Your task to perform on an android device: How much does a 2 bedroom apartment rent for in Chicago? Image 0: 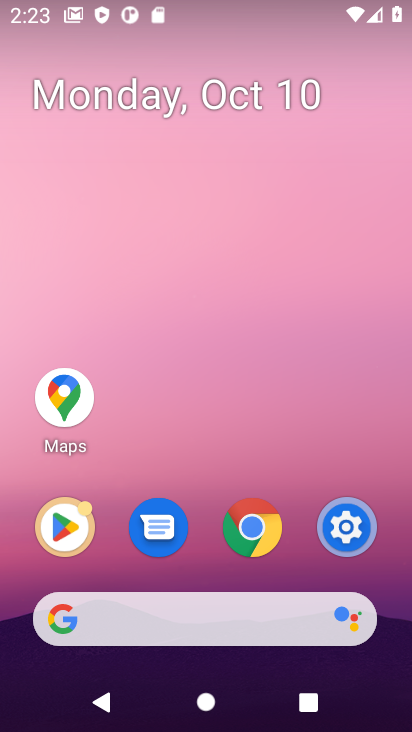
Step 0: press home button
Your task to perform on an android device: How much does a 2 bedroom apartment rent for in Chicago? Image 1: 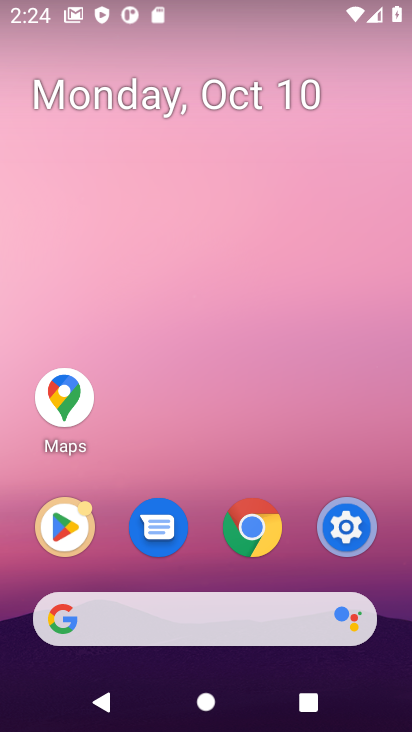
Step 1: press home button
Your task to perform on an android device: How much does a 2 bedroom apartment rent for in Chicago? Image 2: 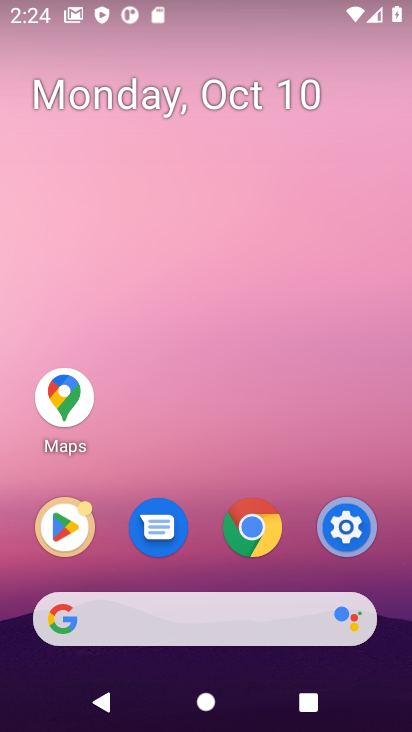
Step 2: click (250, 621)
Your task to perform on an android device: How much does a 2 bedroom apartment rent for in Chicago? Image 3: 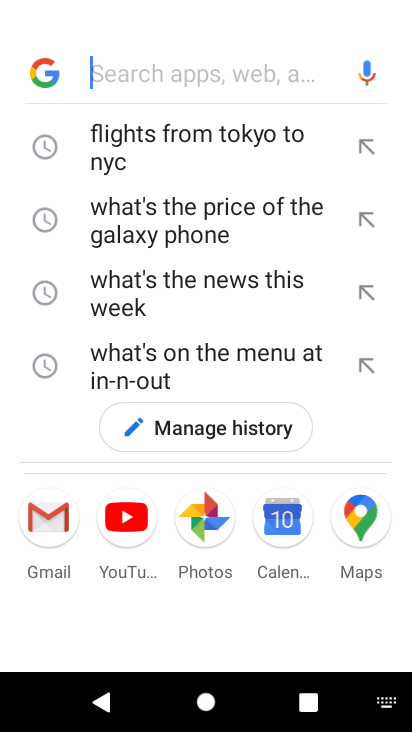
Step 3: type "2 bedroom apartment rent for in Chicago"
Your task to perform on an android device: How much does a 2 bedroom apartment rent for in Chicago? Image 4: 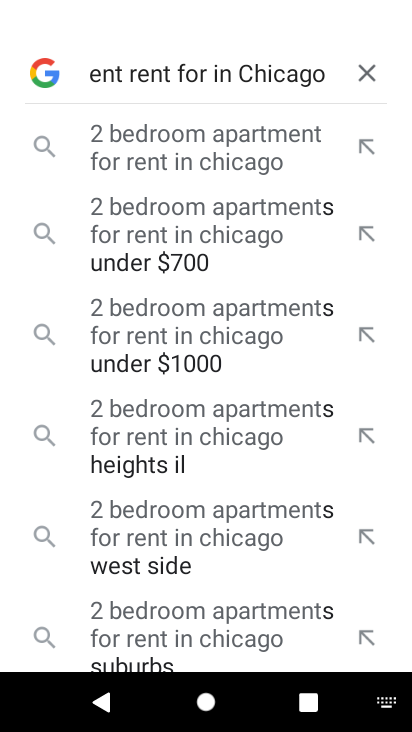
Step 4: press enter
Your task to perform on an android device: How much does a 2 bedroom apartment rent for in Chicago? Image 5: 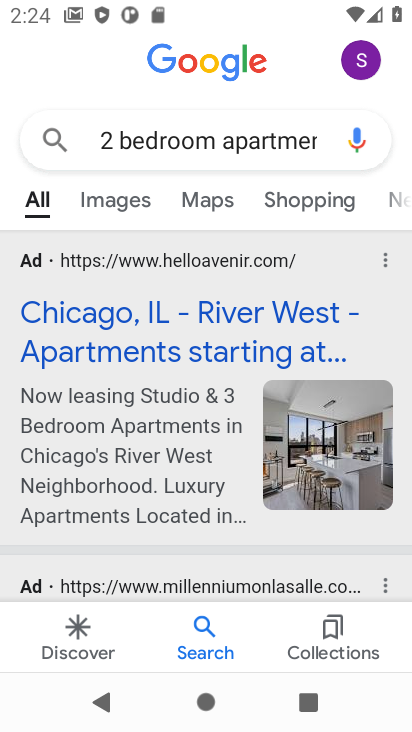
Step 5: click (233, 338)
Your task to perform on an android device: How much does a 2 bedroom apartment rent for in Chicago? Image 6: 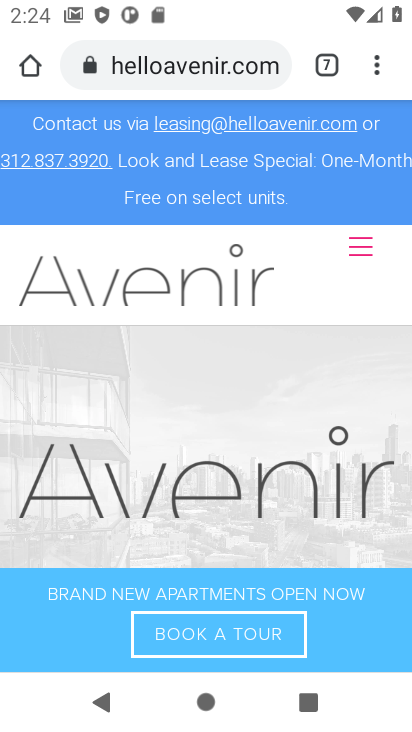
Step 6: task complete